Your task to perform on an android device: Go to Google Image 0: 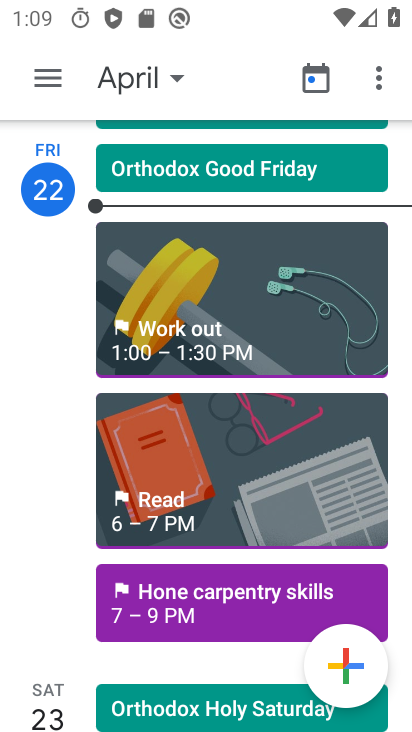
Step 0: press home button
Your task to perform on an android device: Go to Google Image 1: 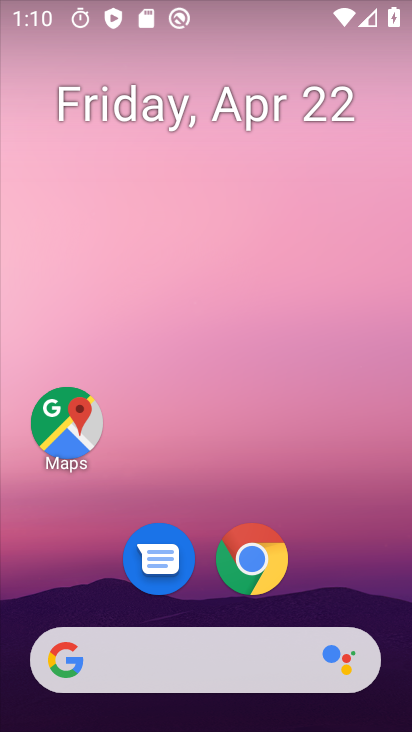
Step 1: drag from (342, 556) to (345, 183)
Your task to perform on an android device: Go to Google Image 2: 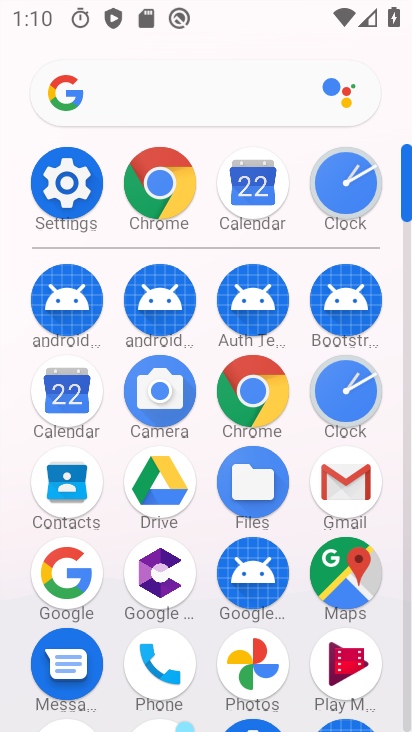
Step 2: click (67, 554)
Your task to perform on an android device: Go to Google Image 3: 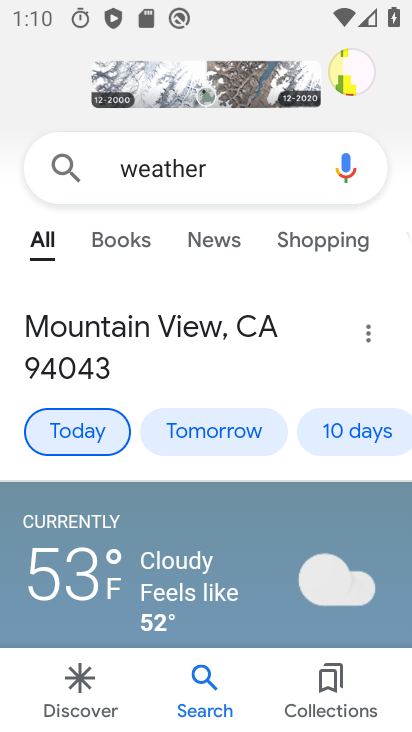
Step 3: task complete